Your task to perform on an android device: stop showing notifications on the lock screen Image 0: 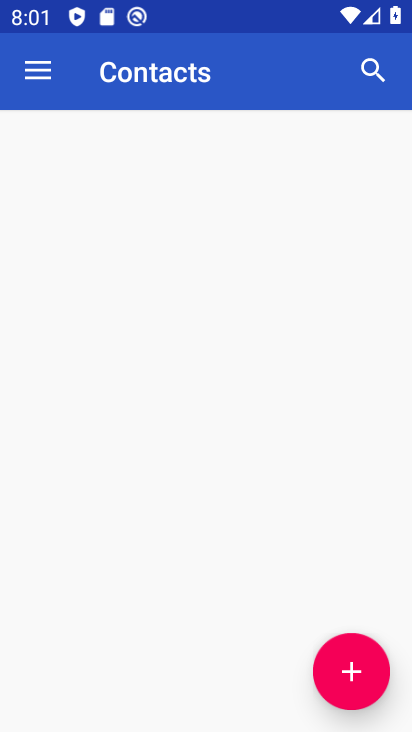
Step 0: press home button
Your task to perform on an android device: stop showing notifications on the lock screen Image 1: 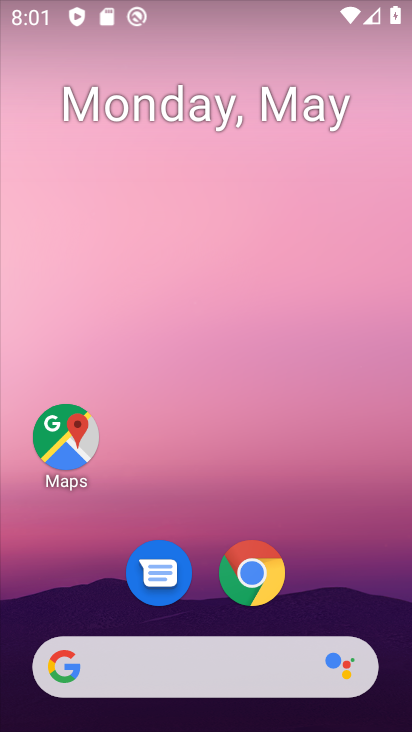
Step 1: drag from (83, 630) to (220, 96)
Your task to perform on an android device: stop showing notifications on the lock screen Image 2: 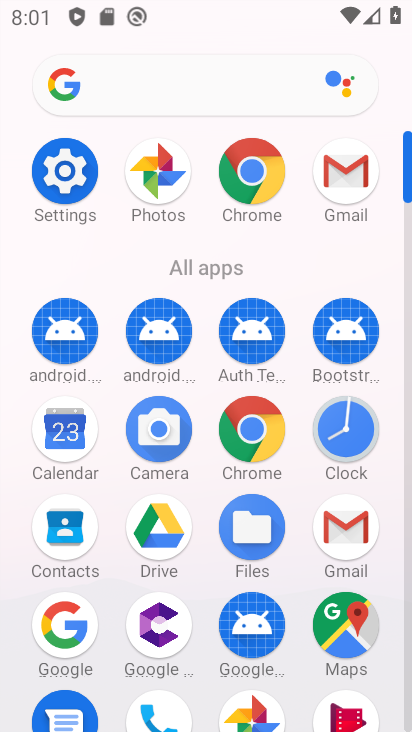
Step 2: drag from (200, 604) to (264, 244)
Your task to perform on an android device: stop showing notifications on the lock screen Image 3: 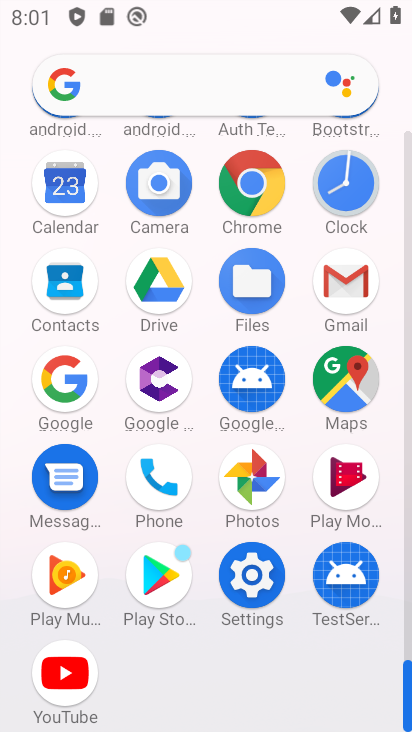
Step 3: click (253, 578)
Your task to perform on an android device: stop showing notifications on the lock screen Image 4: 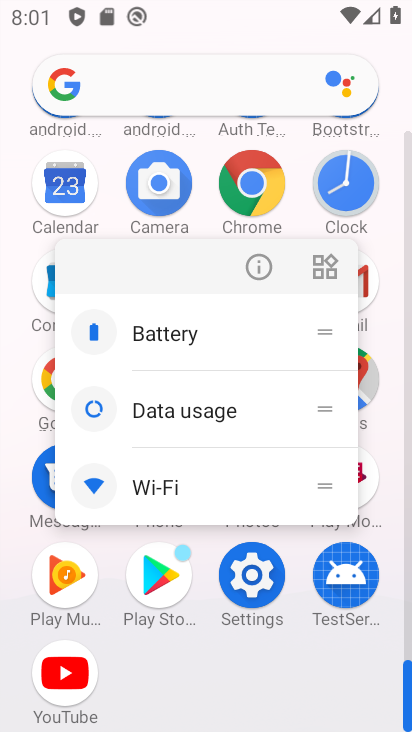
Step 4: click (264, 600)
Your task to perform on an android device: stop showing notifications on the lock screen Image 5: 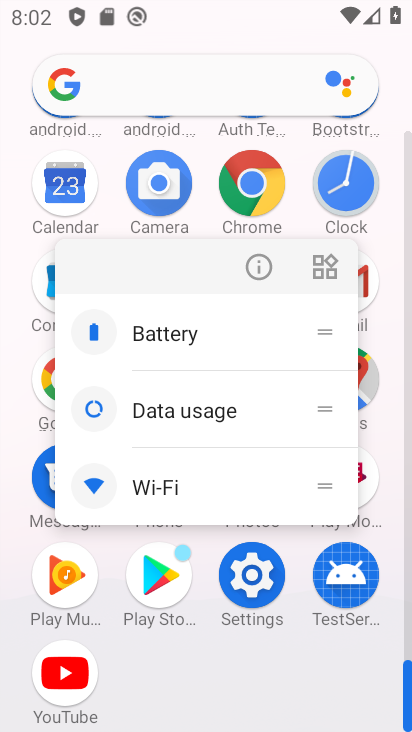
Step 5: click (248, 577)
Your task to perform on an android device: stop showing notifications on the lock screen Image 6: 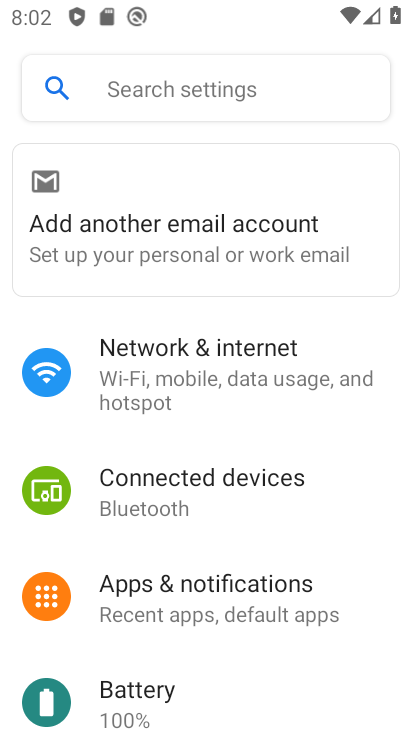
Step 6: drag from (169, 724) to (328, 295)
Your task to perform on an android device: stop showing notifications on the lock screen Image 7: 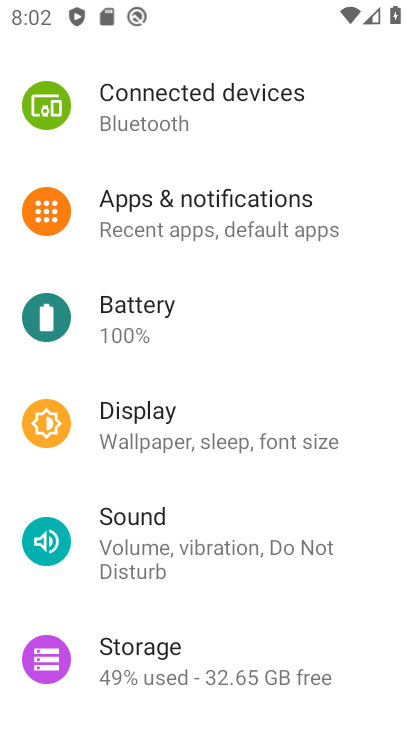
Step 7: click (236, 219)
Your task to perform on an android device: stop showing notifications on the lock screen Image 8: 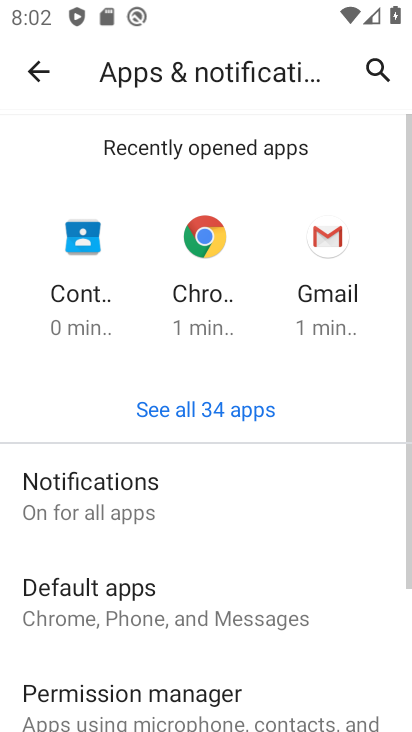
Step 8: click (163, 486)
Your task to perform on an android device: stop showing notifications on the lock screen Image 9: 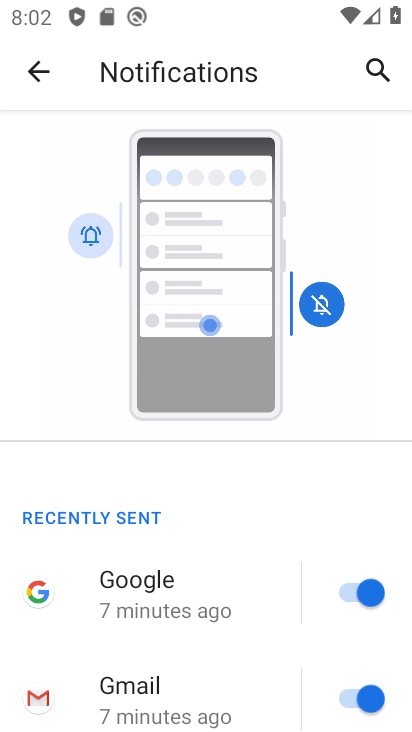
Step 9: drag from (169, 714) to (326, 229)
Your task to perform on an android device: stop showing notifications on the lock screen Image 10: 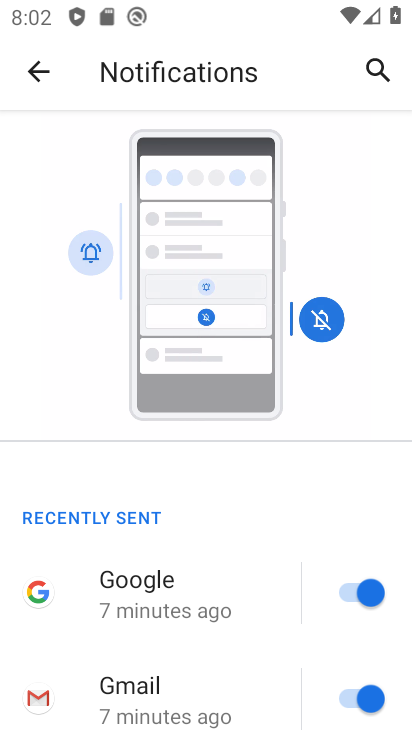
Step 10: drag from (161, 670) to (275, 82)
Your task to perform on an android device: stop showing notifications on the lock screen Image 11: 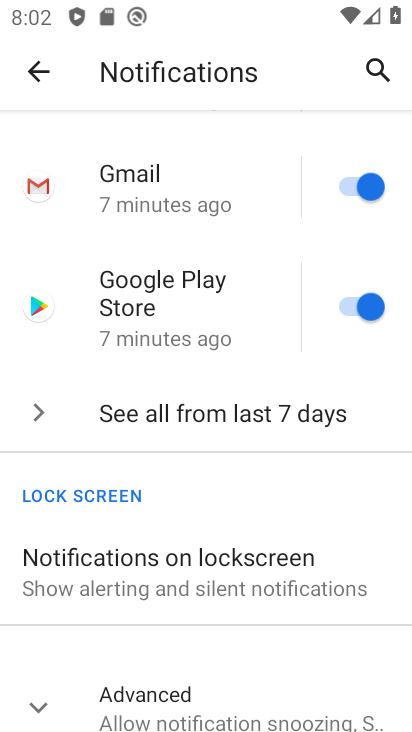
Step 11: click (195, 584)
Your task to perform on an android device: stop showing notifications on the lock screen Image 12: 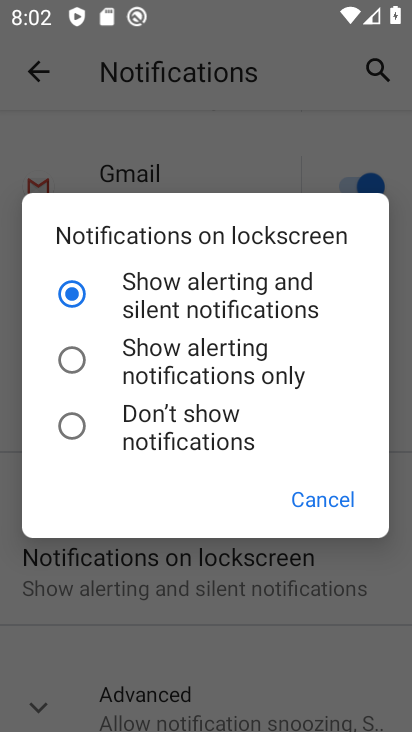
Step 12: click (182, 447)
Your task to perform on an android device: stop showing notifications on the lock screen Image 13: 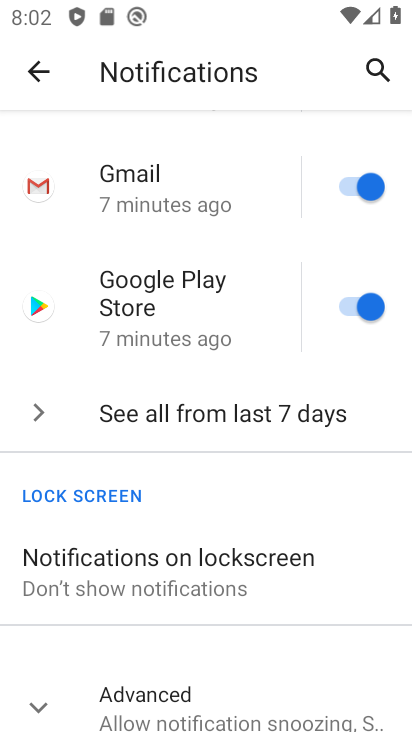
Step 13: task complete